Your task to perform on an android device: Check the settings for the Amazon Music app Image 0: 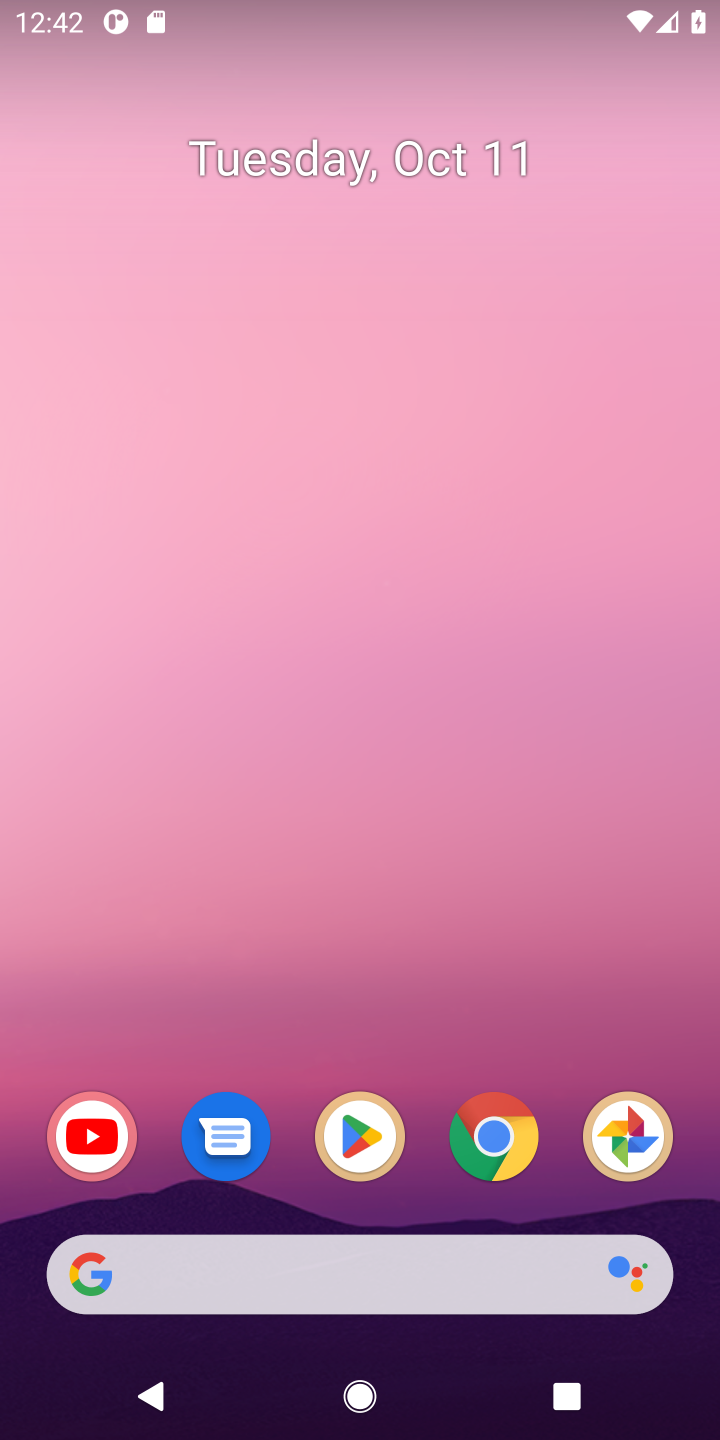
Step 0: drag from (684, 1017) to (570, 170)
Your task to perform on an android device: Check the settings for the Amazon Music app Image 1: 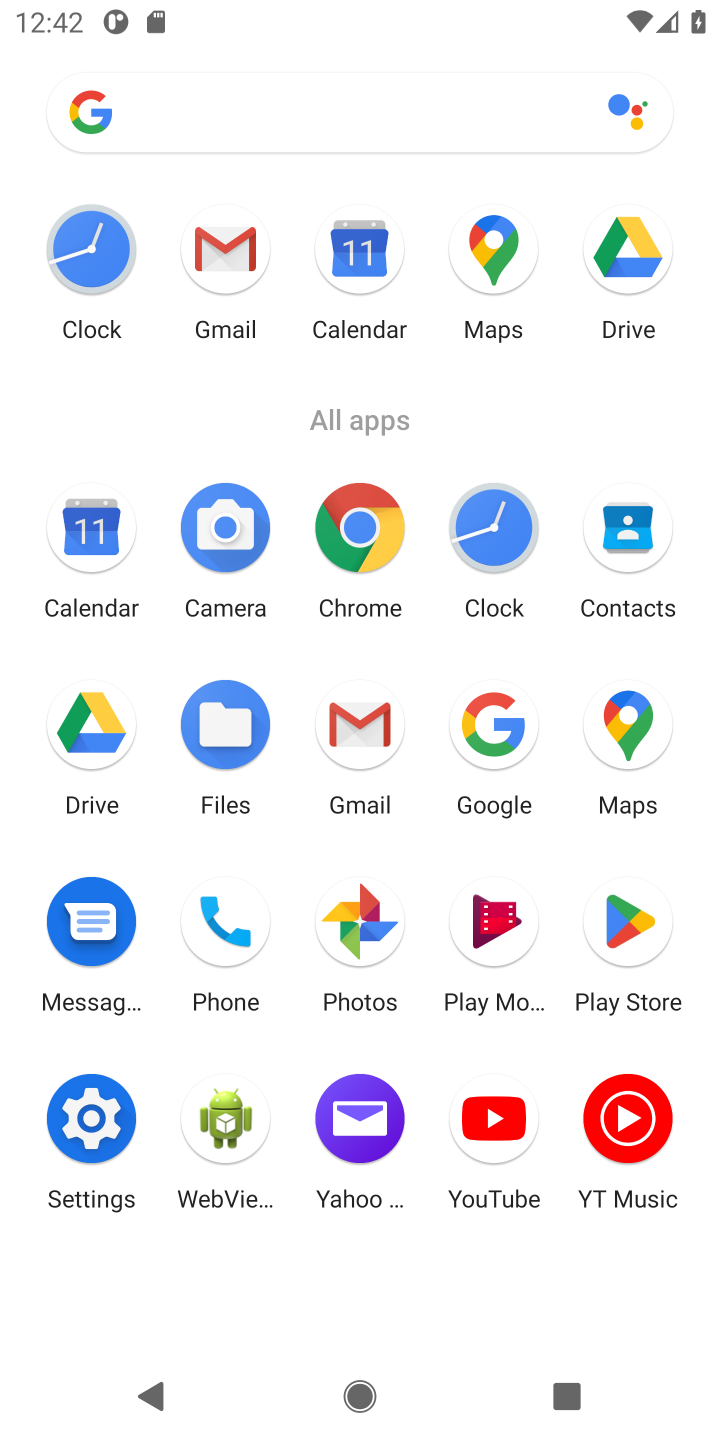
Step 1: click (614, 893)
Your task to perform on an android device: Check the settings for the Amazon Music app Image 2: 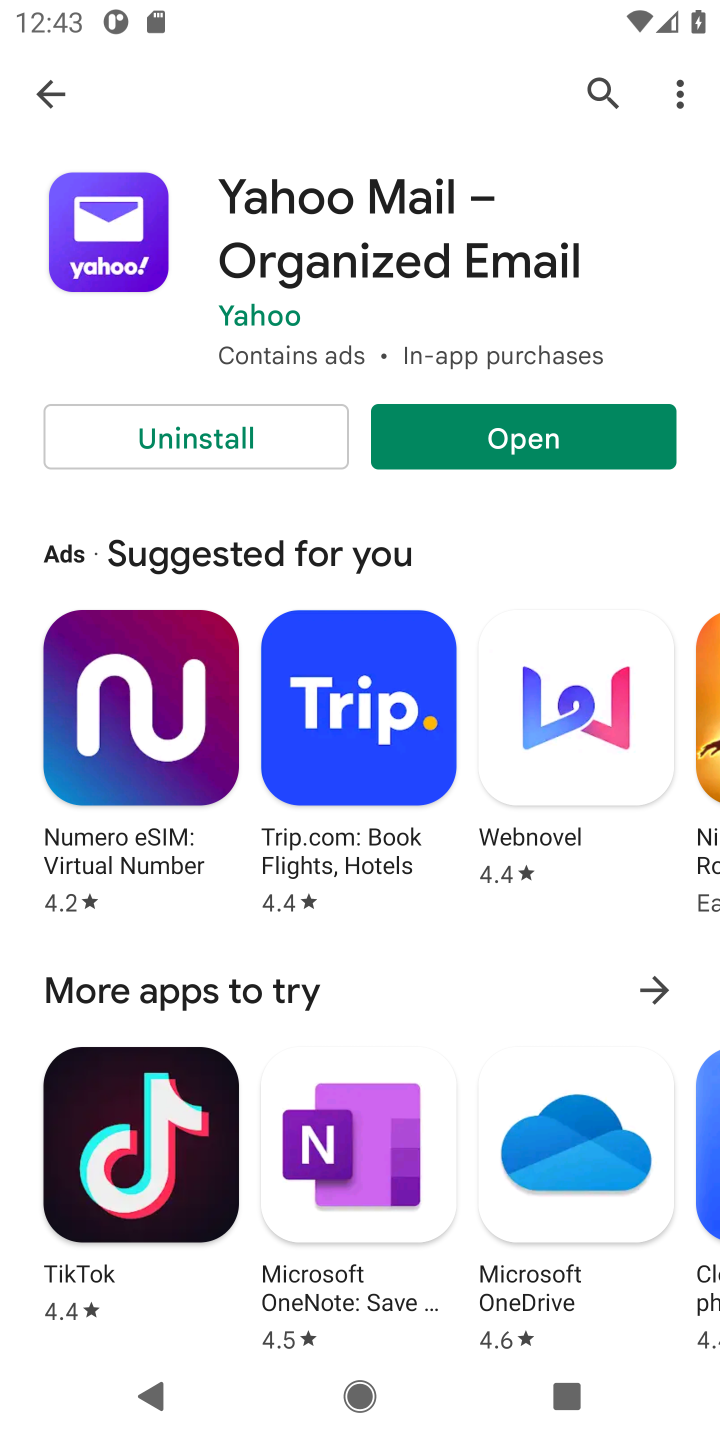
Step 2: press back button
Your task to perform on an android device: Check the settings for the Amazon Music app Image 3: 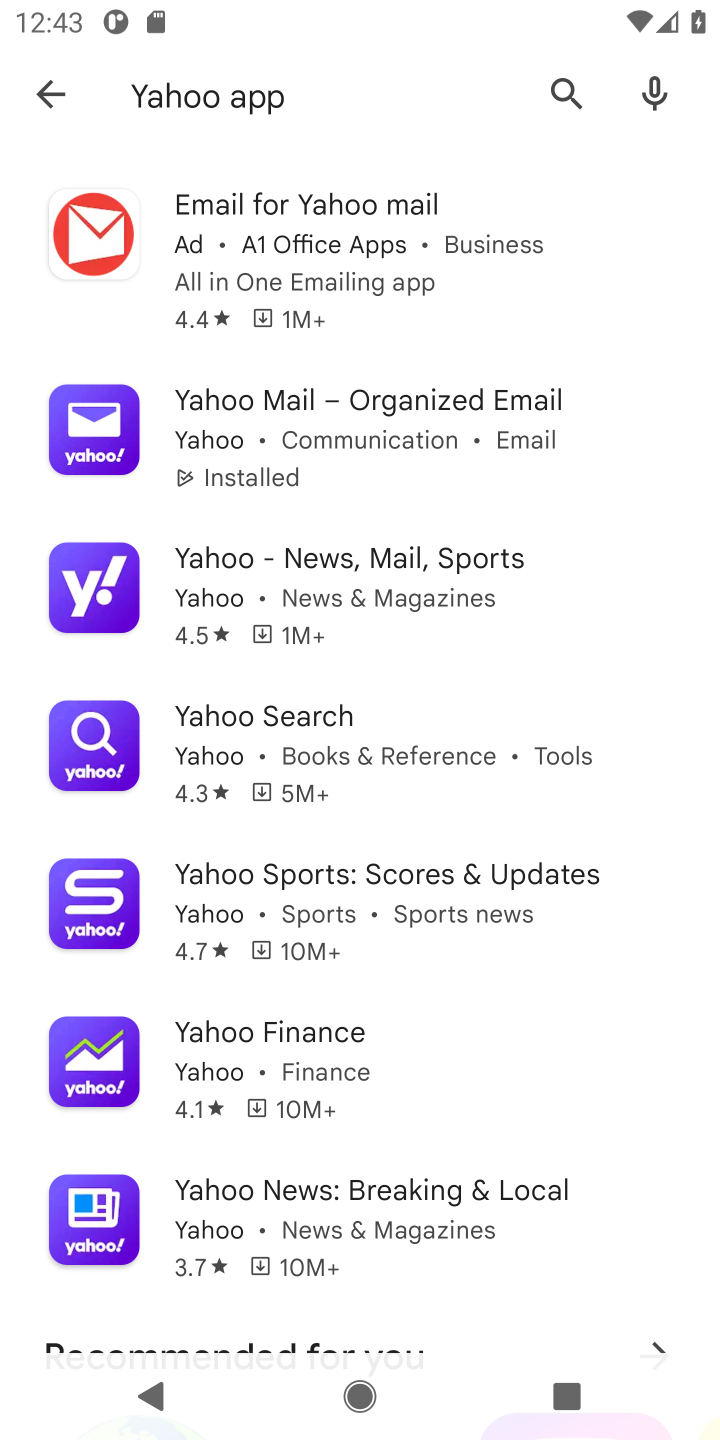
Step 3: click (557, 80)
Your task to perform on an android device: Check the settings for the Amazon Music app Image 4: 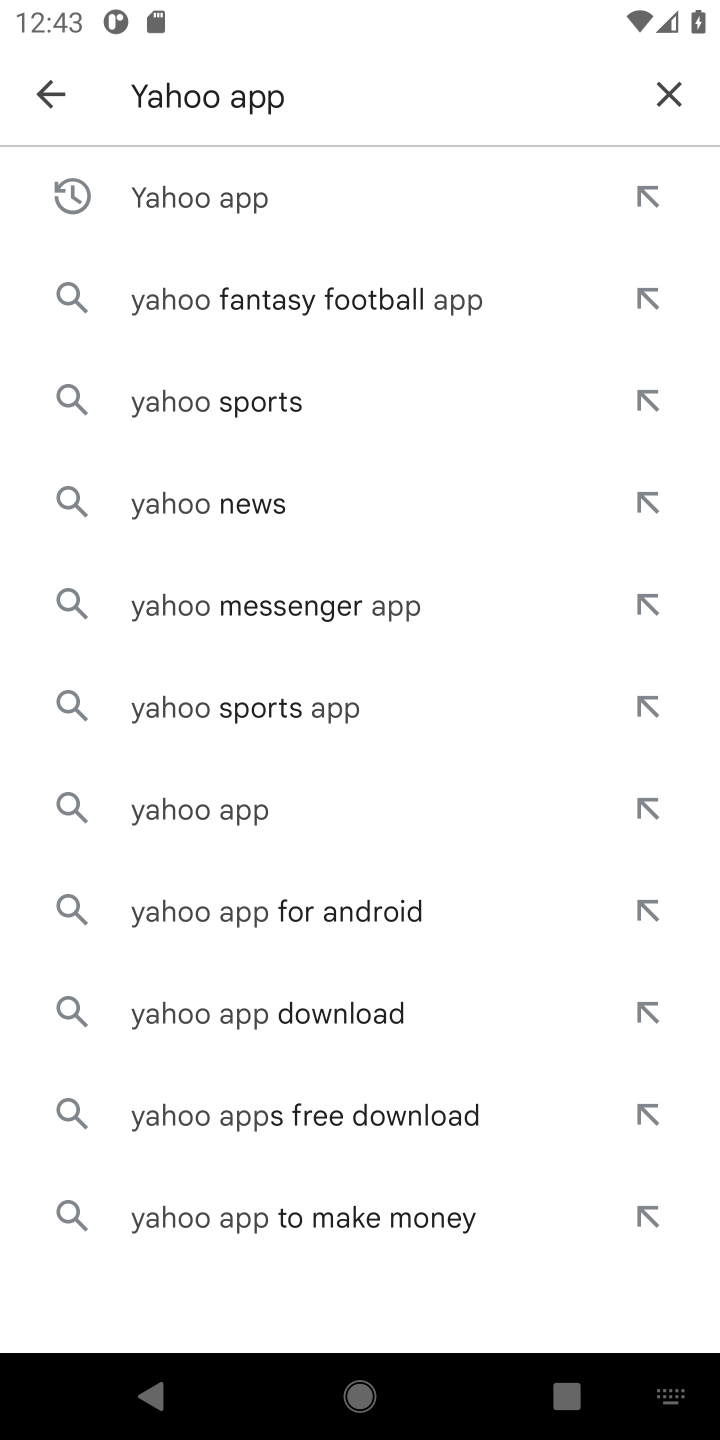
Step 4: click (667, 97)
Your task to perform on an android device: Check the settings for the Amazon Music app Image 5: 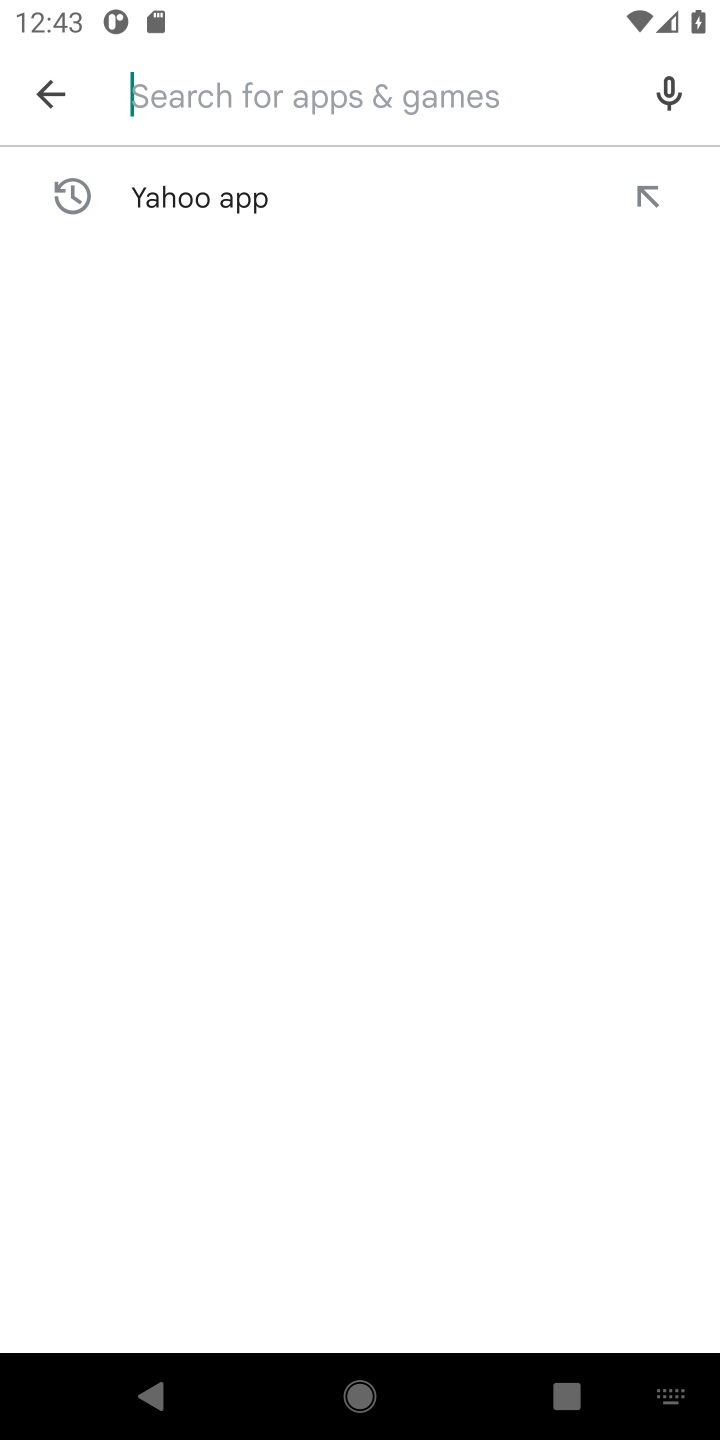
Step 5: type " Amazon Music app"
Your task to perform on an android device: Check the settings for the Amazon Music app Image 6: 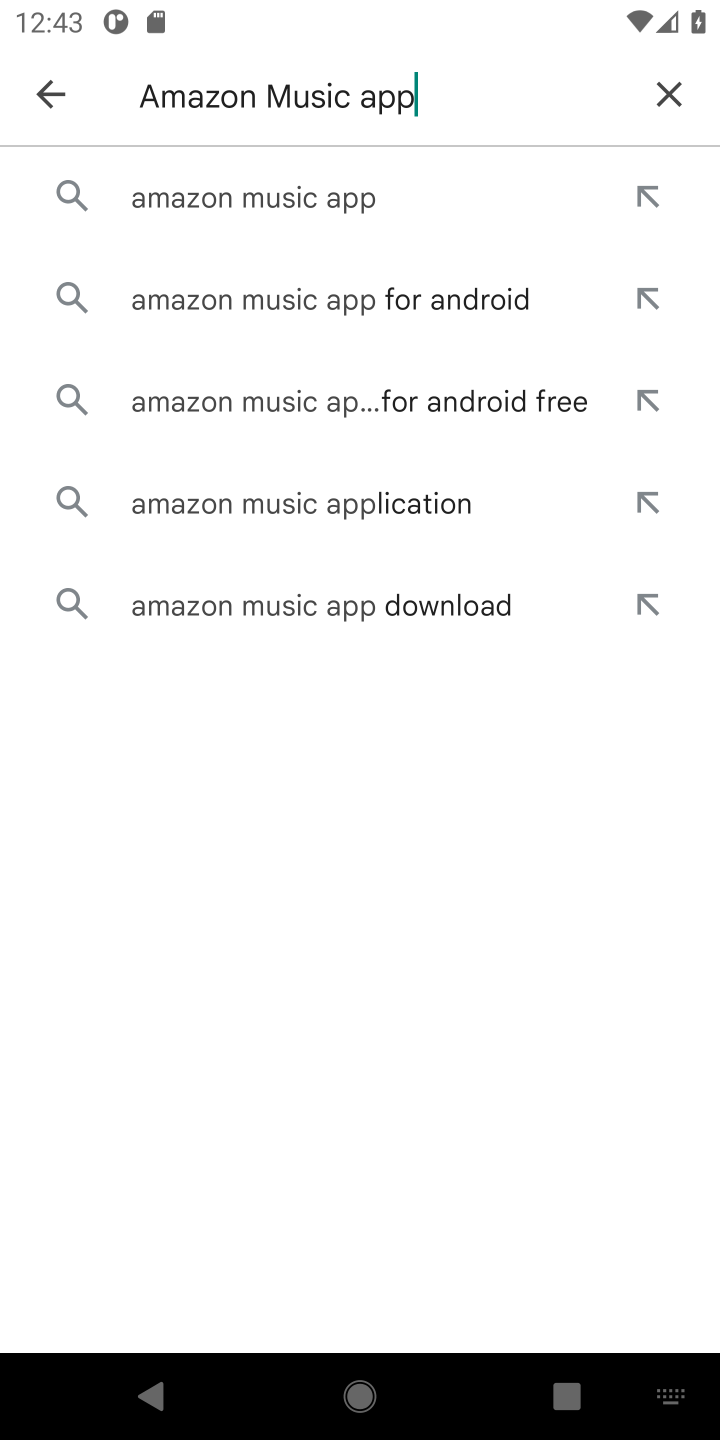
Step 6: press enter
Your task to perform on an android device: Check the settings for the Amazon Music app Image 7: 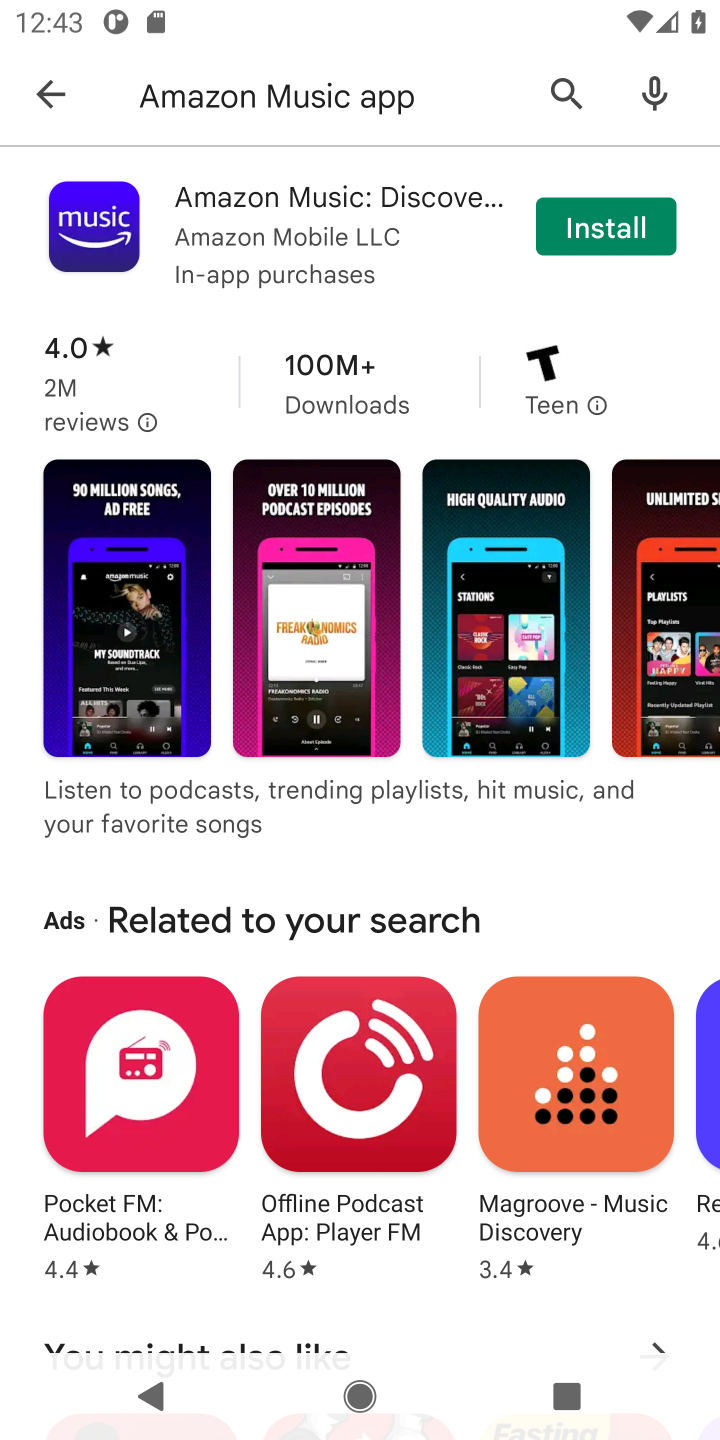
Step 7: task complete